Your task to perform on an android device: open app "Grab" (install if not already installed) and go to login screen Image 0: 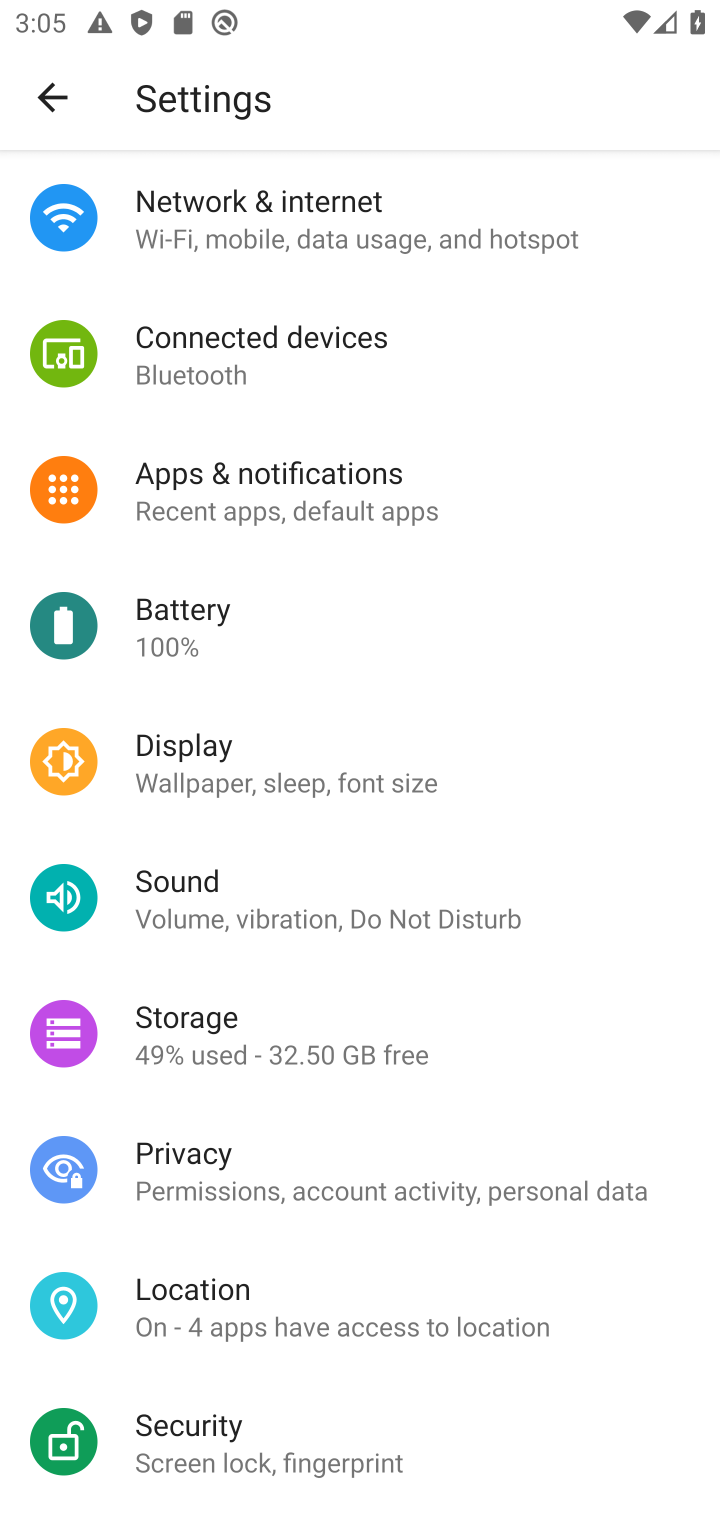
Step 0: press home button
Your task to perform on an android device: open app "Grab" (install if not already installed) and go to login screen Image 1: 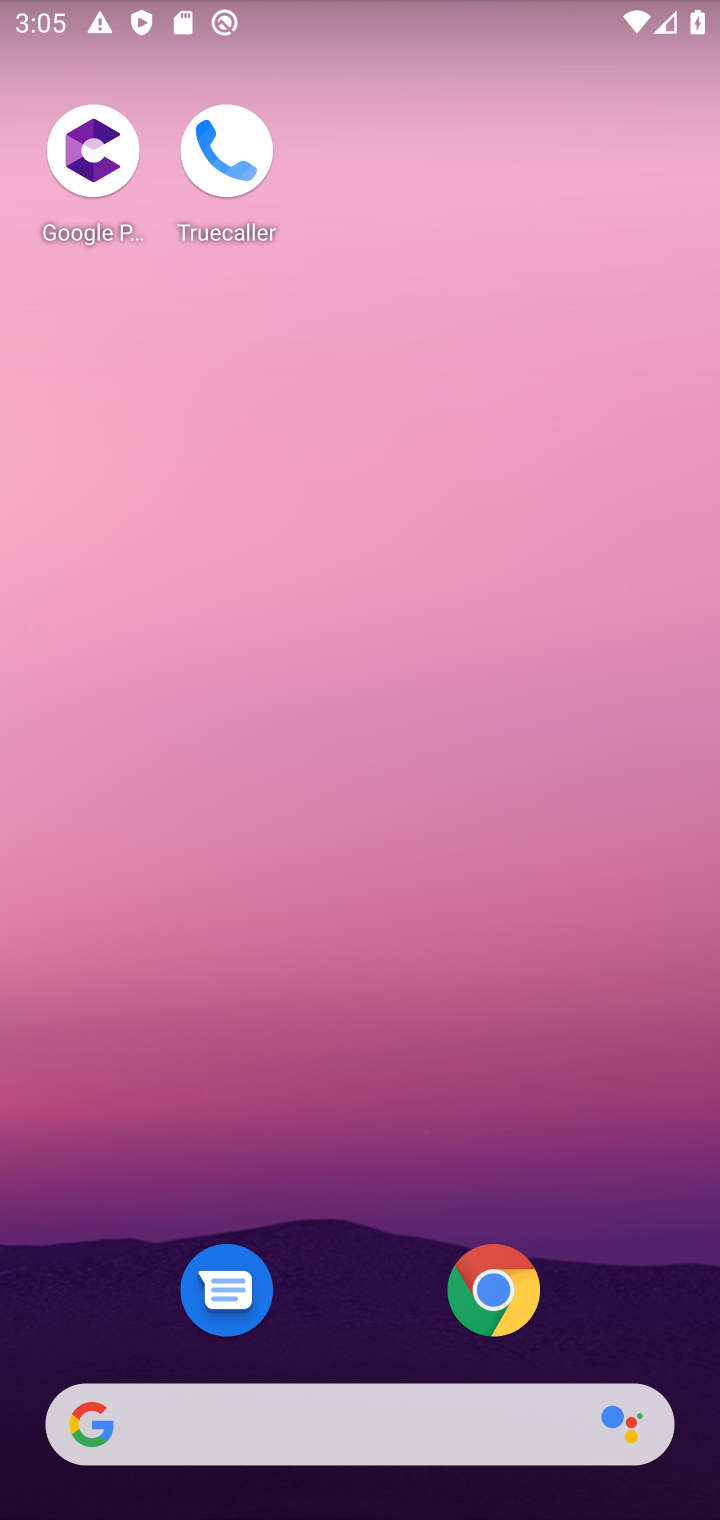
Step 1: drag from (209, 1371) to (262, 115)
Your task to perform on an android device: open app "Grab" (install if not already installed) and go to login screen Image 2: 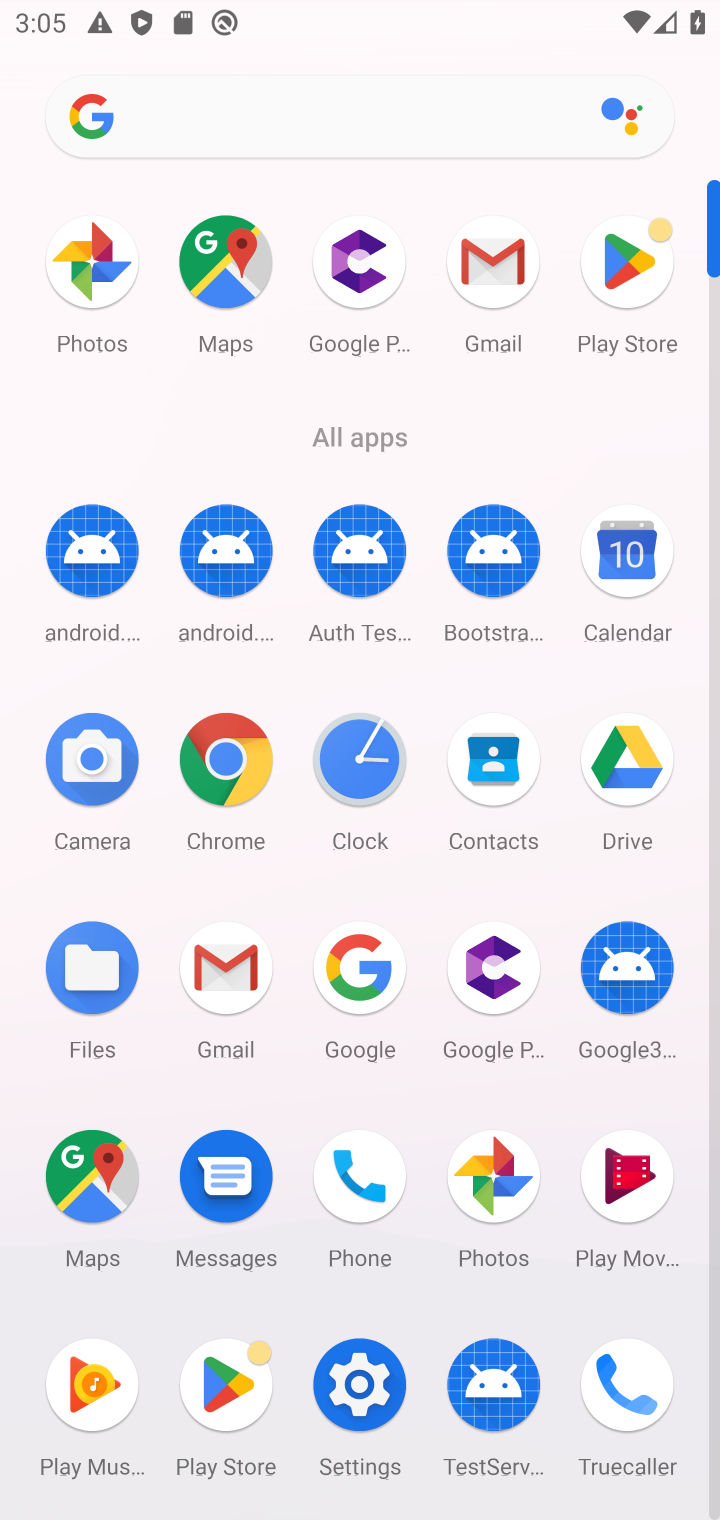
Step 2: click (241, 1408)
Your task to perform on an android device: open app "Grab" (install if not already installed) and go to login screen Image 3: 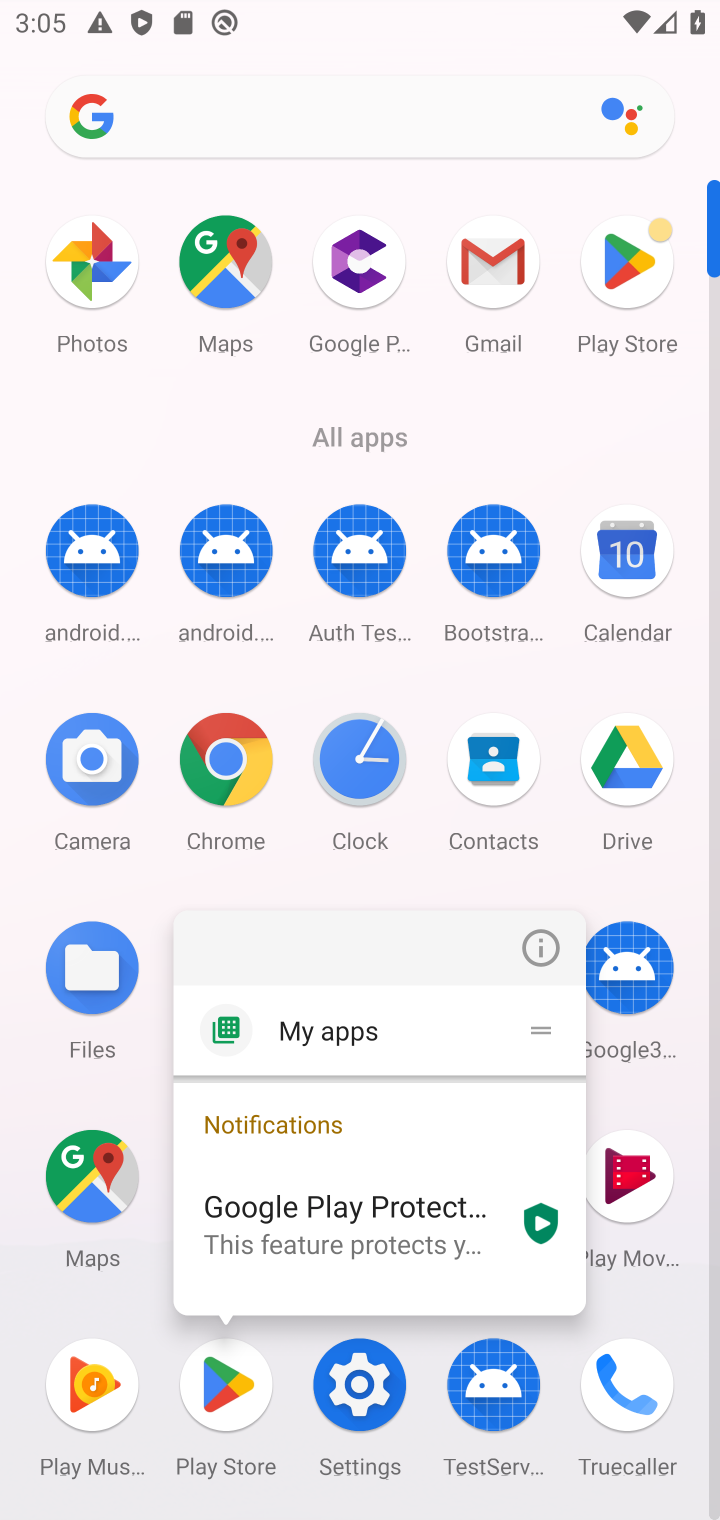
Step 3: click (211, 1416)
Your task to perform on an android device: open app "Grab" (install if not already installed) and go to login screen Image 4: 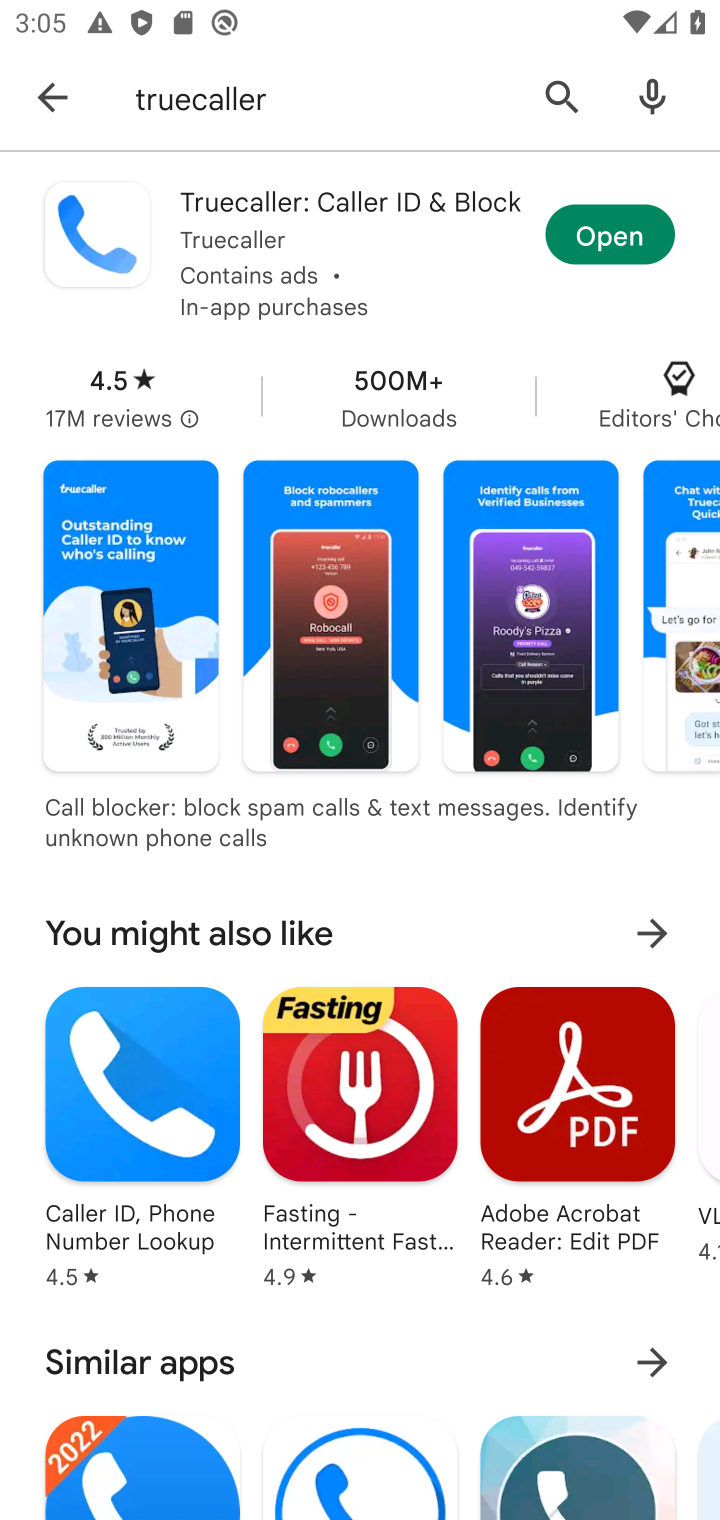
Step 4: click (55, 81)
Your task to perform on an android device: open app "Grab" (install if not already installed) and go to login screen Image 5: 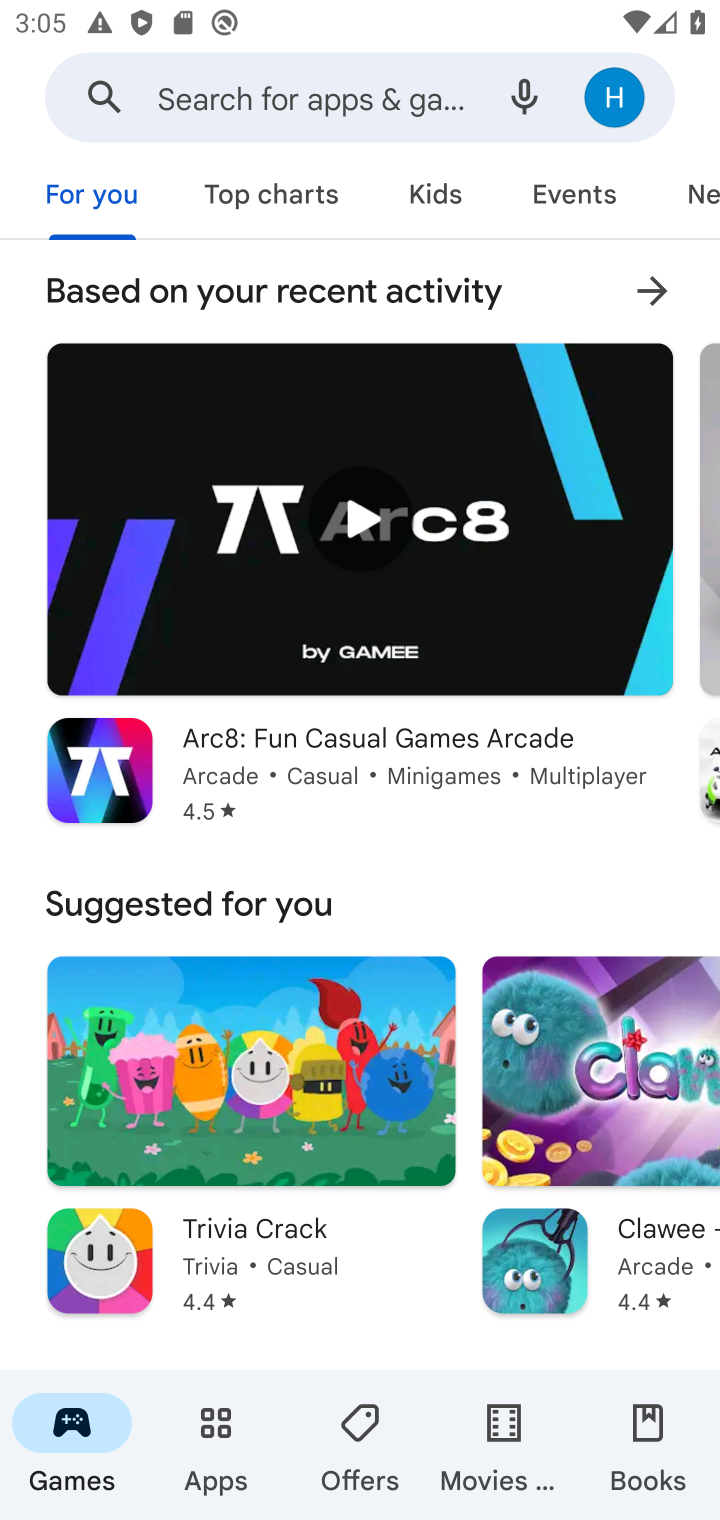
Step 5: click (214, 106)
Your task to perform on an android device: open app "Grab" (install if not already installed) and go to login screen Image 6: 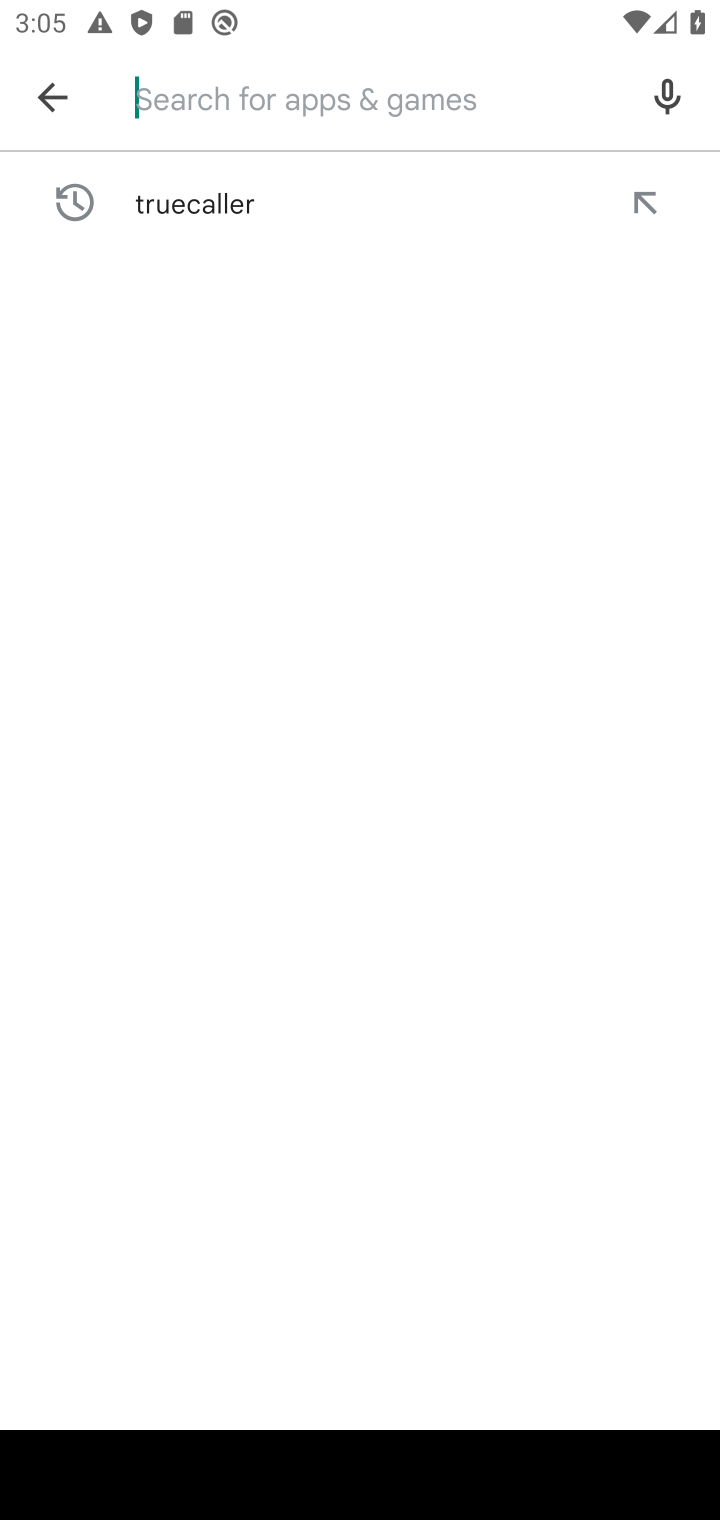
Step 6: type "Grab"
Your task to perform on an android device: open app "Grab" (install if not already installed) and go to login screen Image 7: 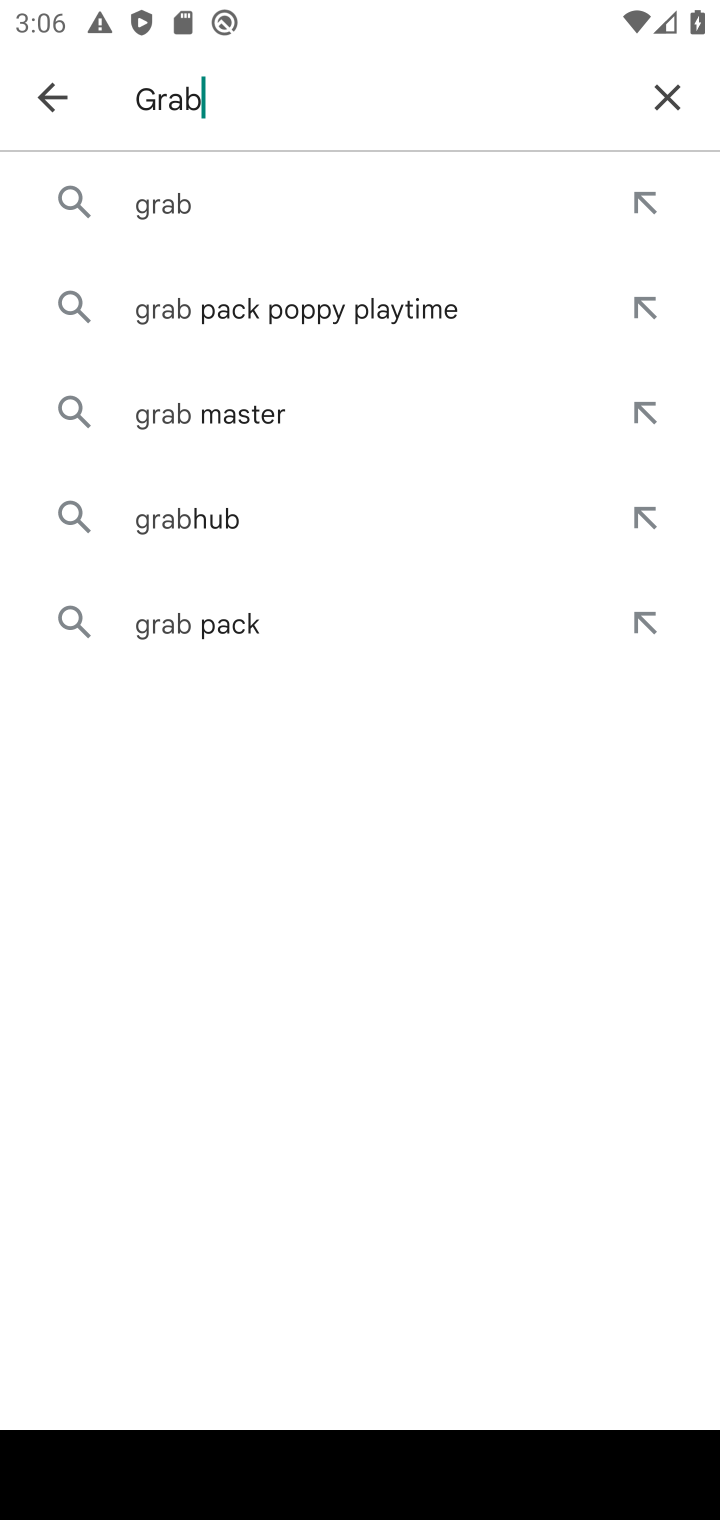
Step 7: click (126, 196)
Your task to perform on an android device: open app "Grab" (install if not already installed) and go to login screen Image 8: 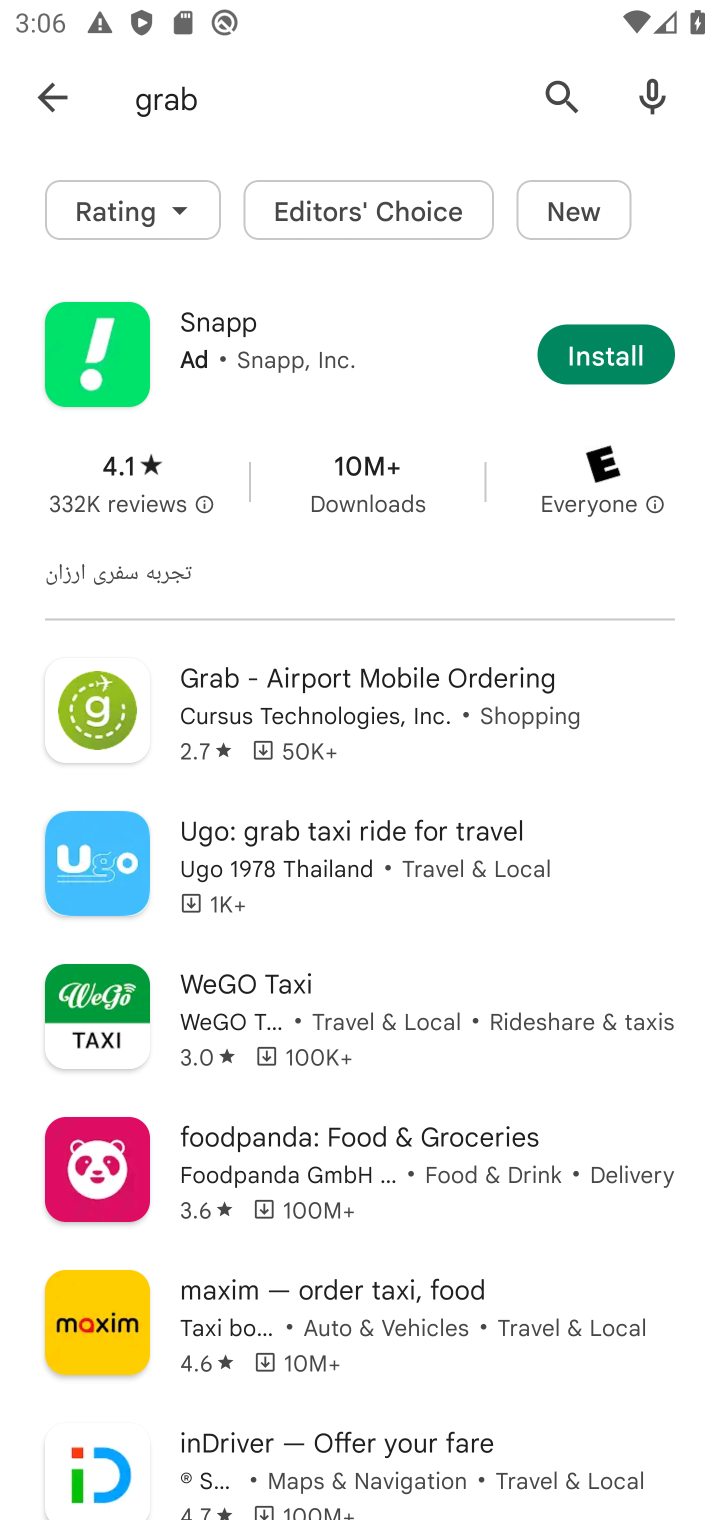
Step 8: click (248, 693)
Your task to perform on an android device: open app "Grab" (install if not already installed) and go to login screen Image 9: 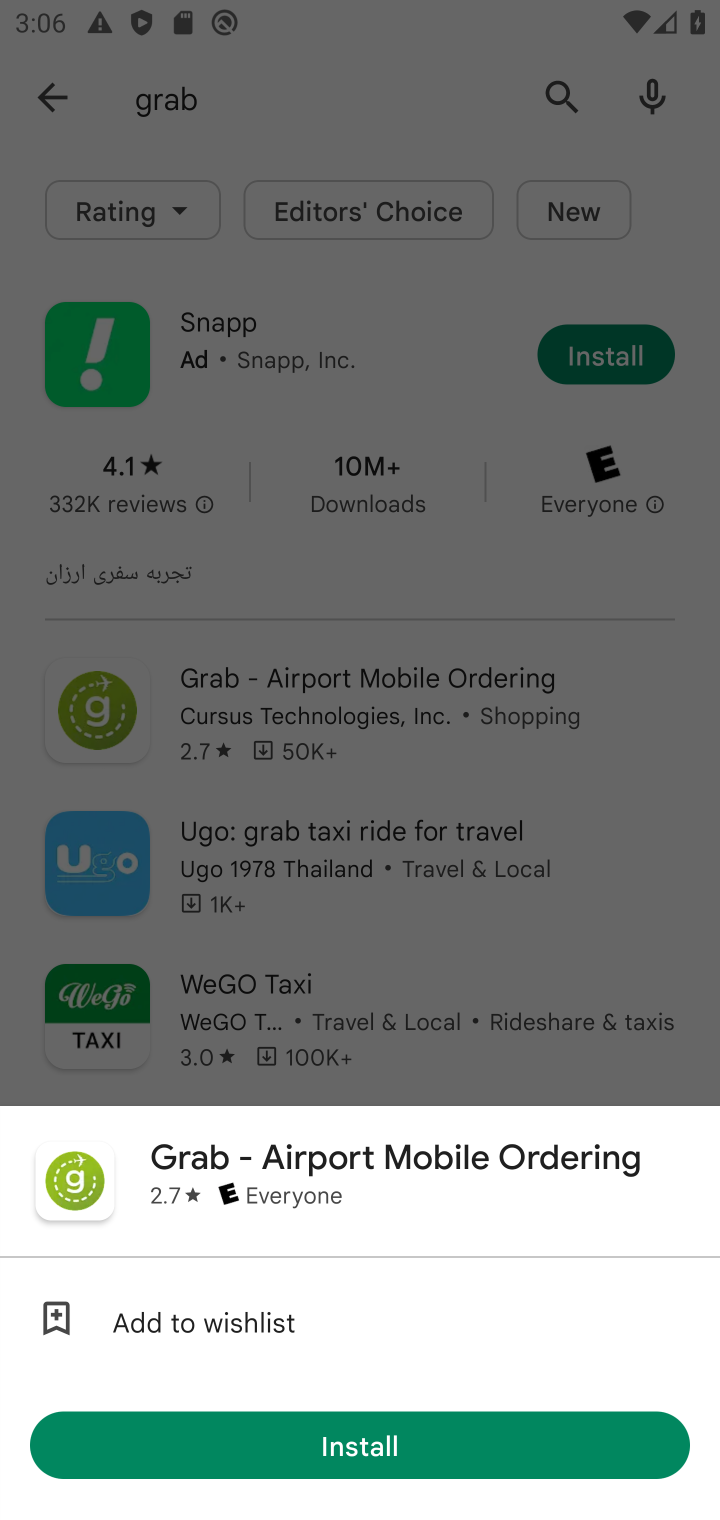
Step 9: click (258, 1446)
Your task to perform on an android device: open app "Grab" (install if not already installed) and go to login screen Image 10: 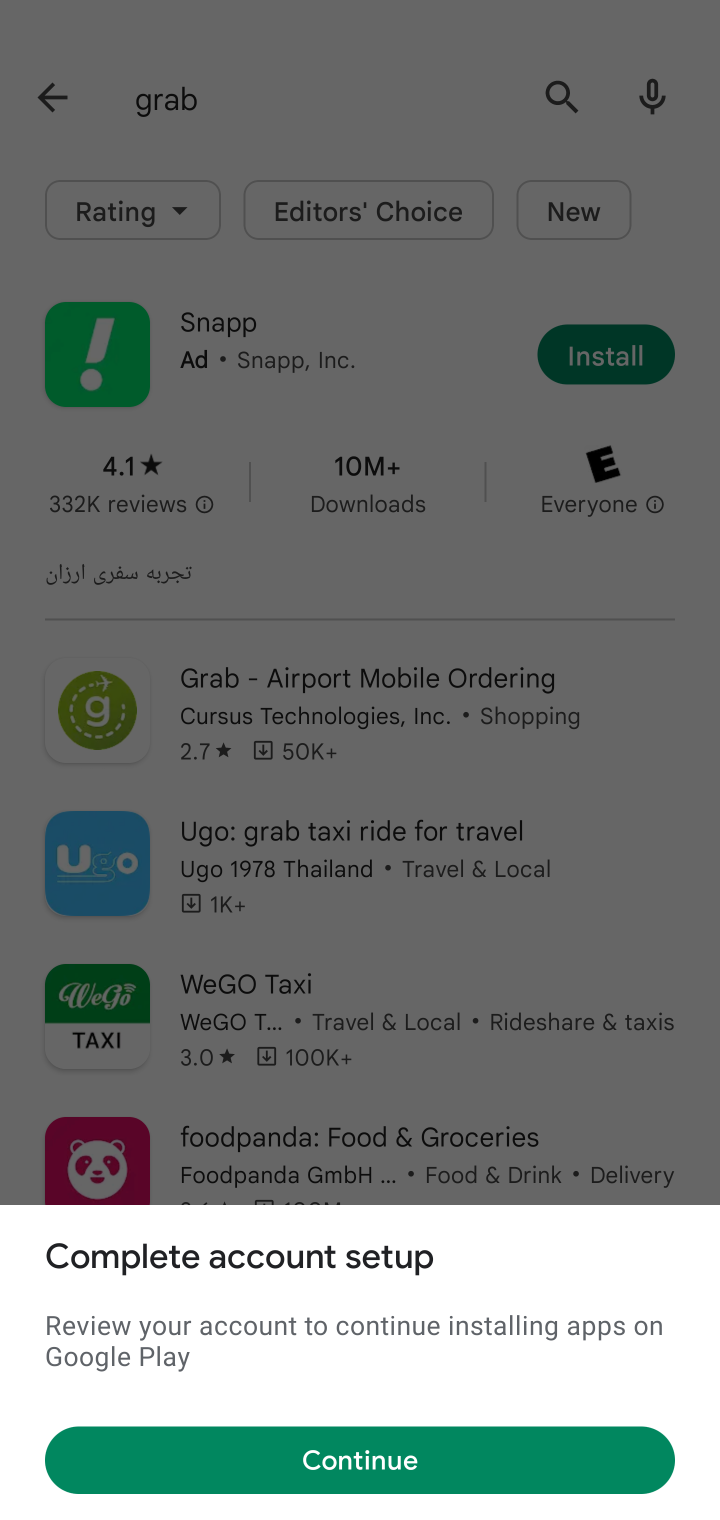
Step 10: click (376, 1442)
Your task to perform on an android device: open app "Grab" (install if not already installed) and go to login screen Image 11: 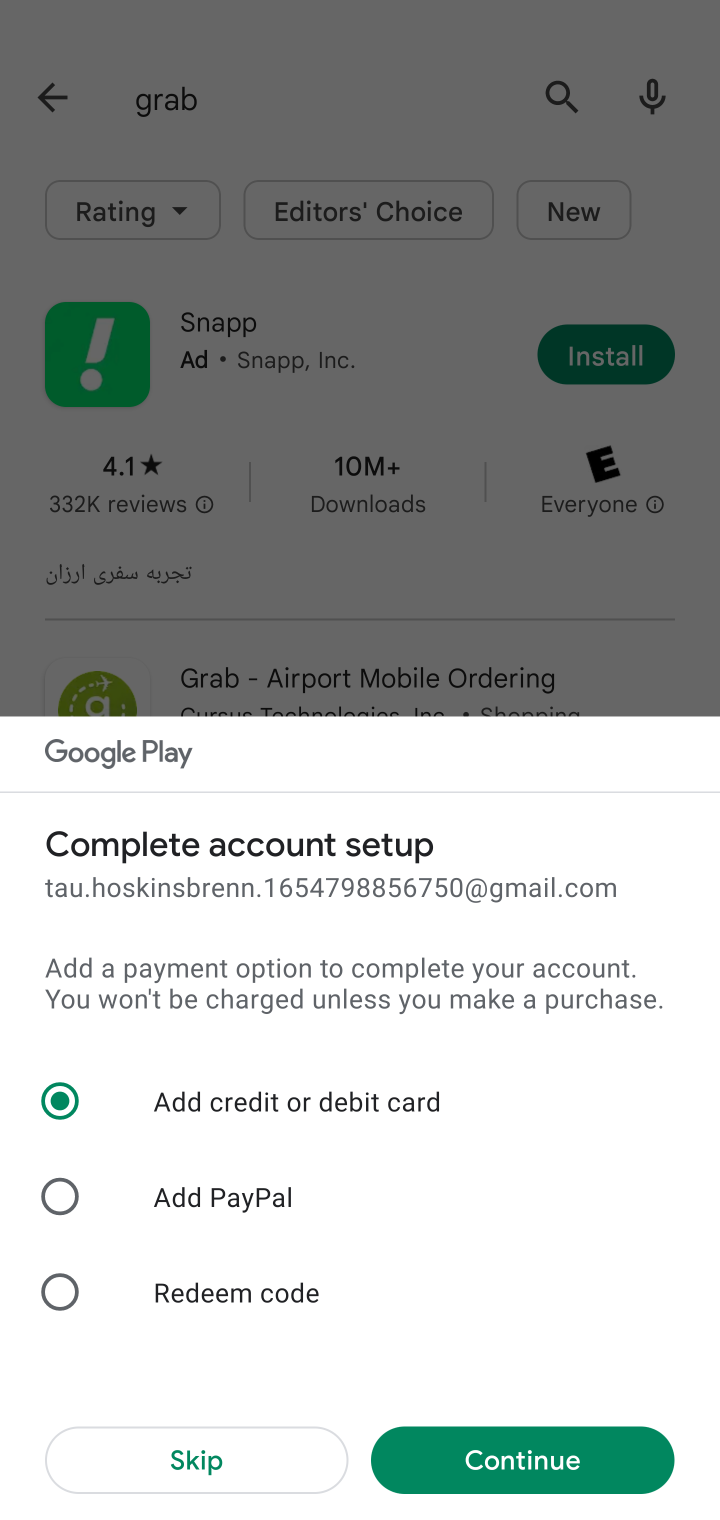
Step 11: click (129, 1456)
Your task to perform on an android device: open app "Grab" (install if not already installed) and go to login screen Image 12: 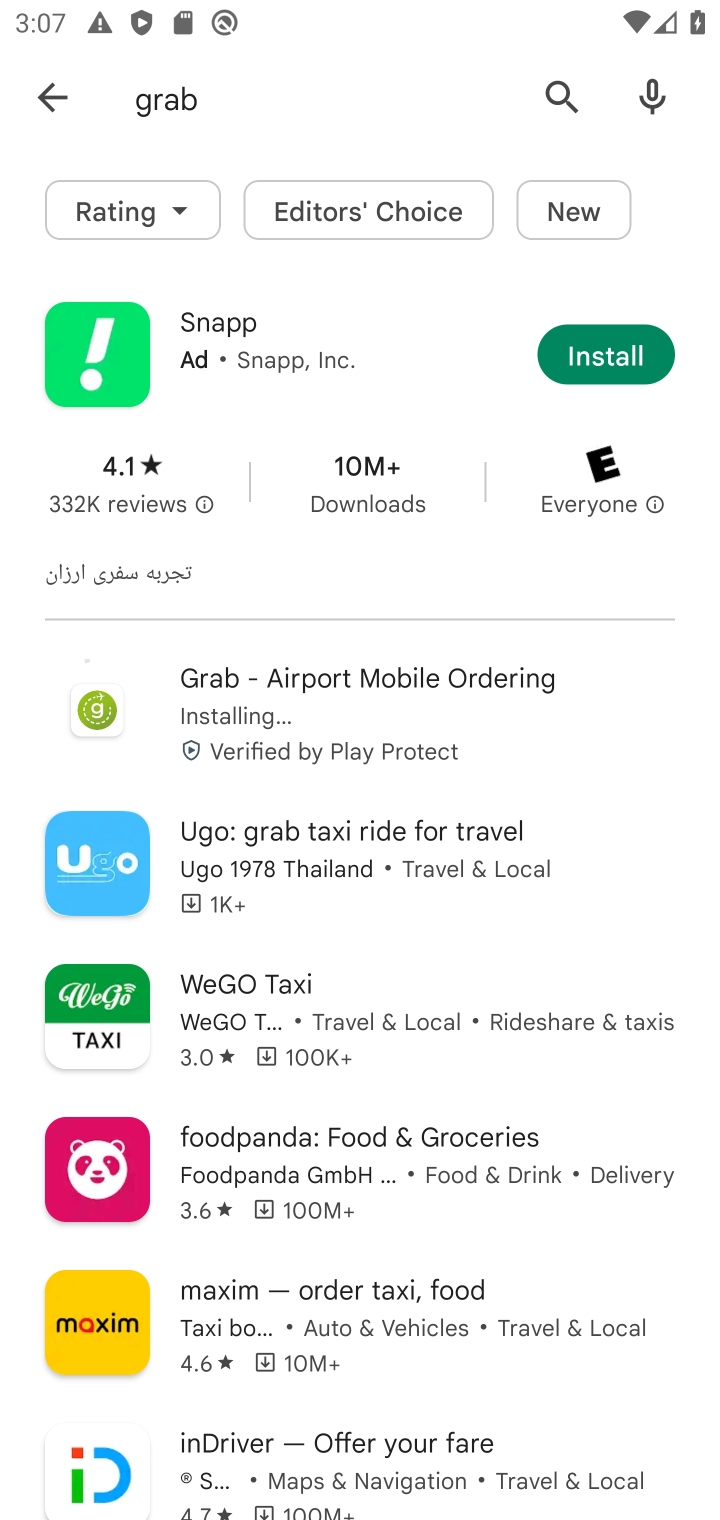
Step 12: click (309, 660)
Your task to perform on an android device: open app "Grab" (install if not already installed) and go to login screen Image 13: 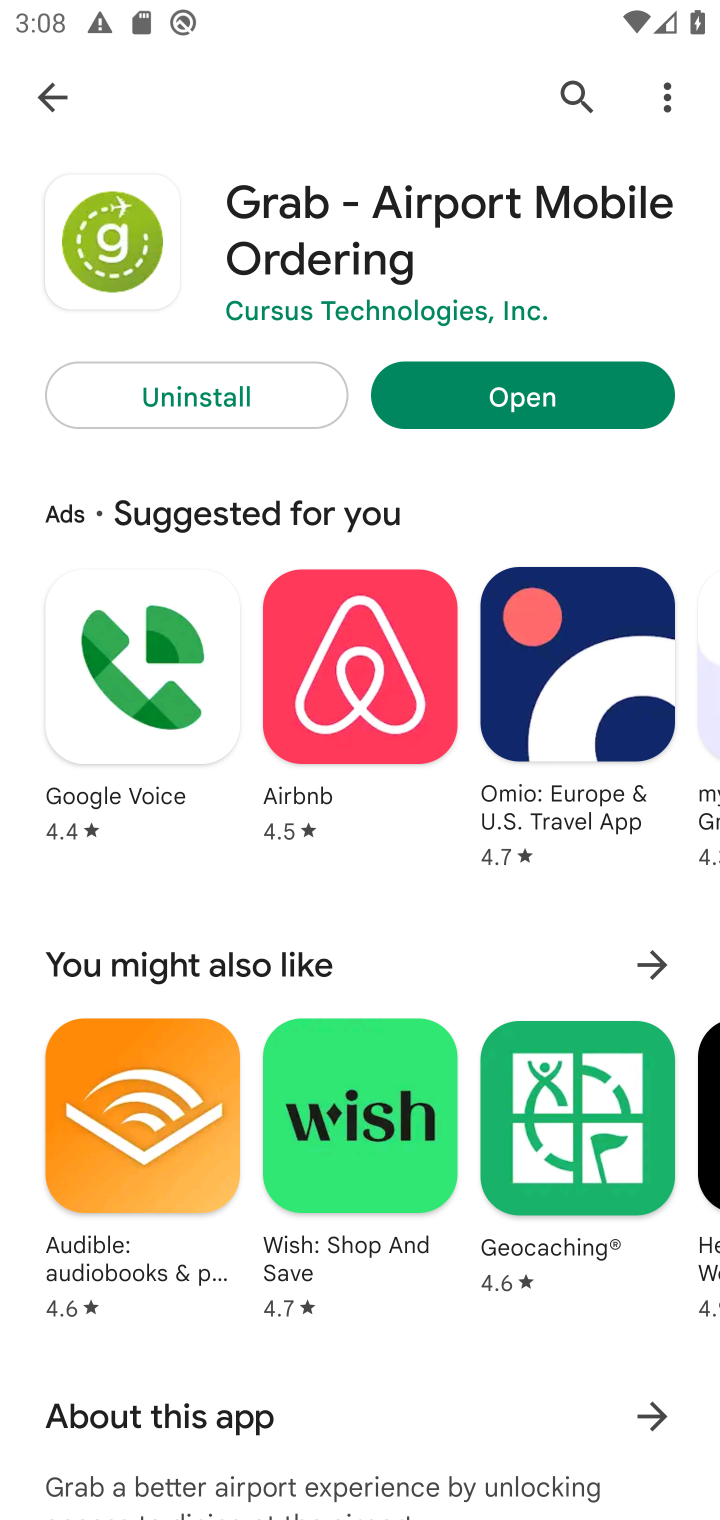
Step 13: click (534, 415)
Your task to perform on an android device: open app "Grab" (install if not already installed) and go to login screen Image 14: 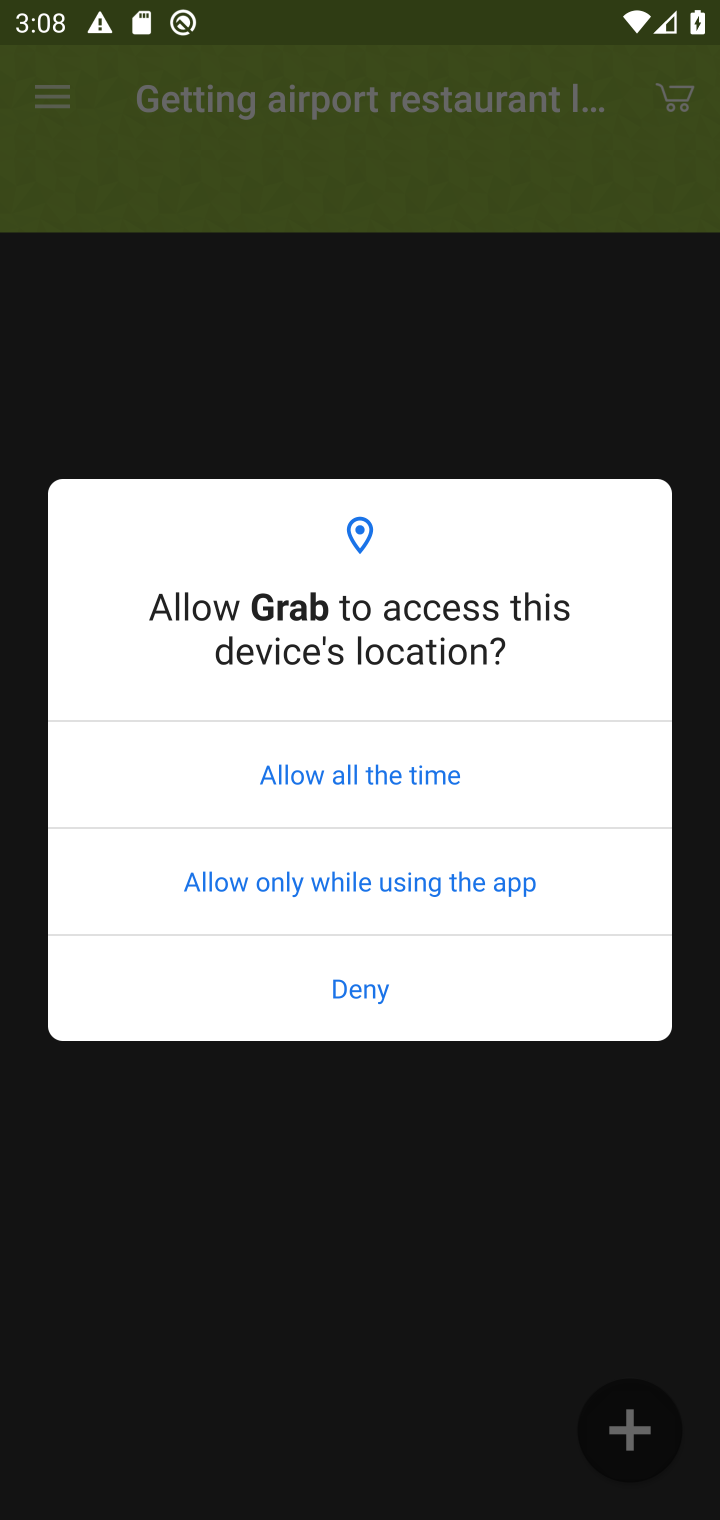
Step 14: click (367, 801)
Your task to perform on an android device: open app "Grab" (install if not already installed) and go to login screen Image 15: 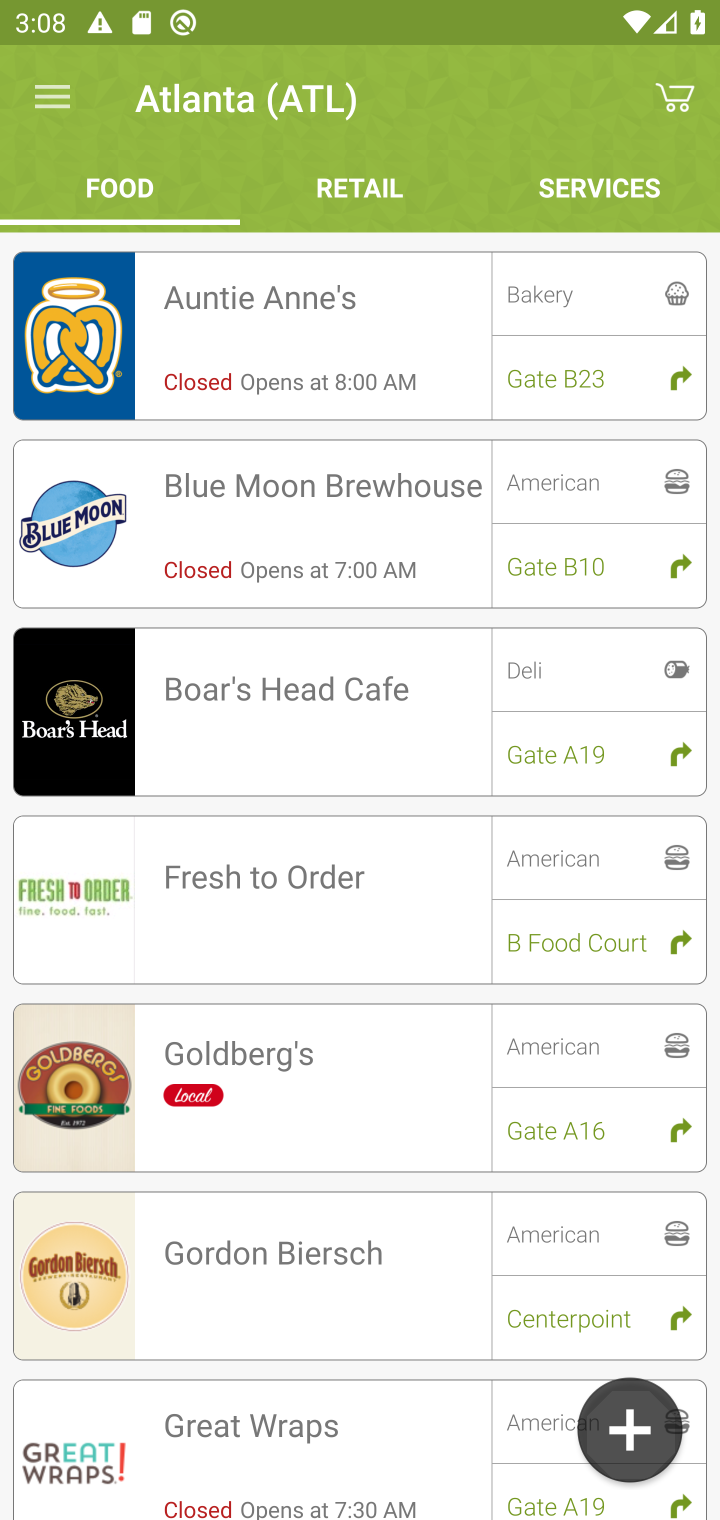
Step 15: click (42, 107)
Your task to perform on an android device: open app "Grab" (install if not already installed) and go to login screen Image 16: 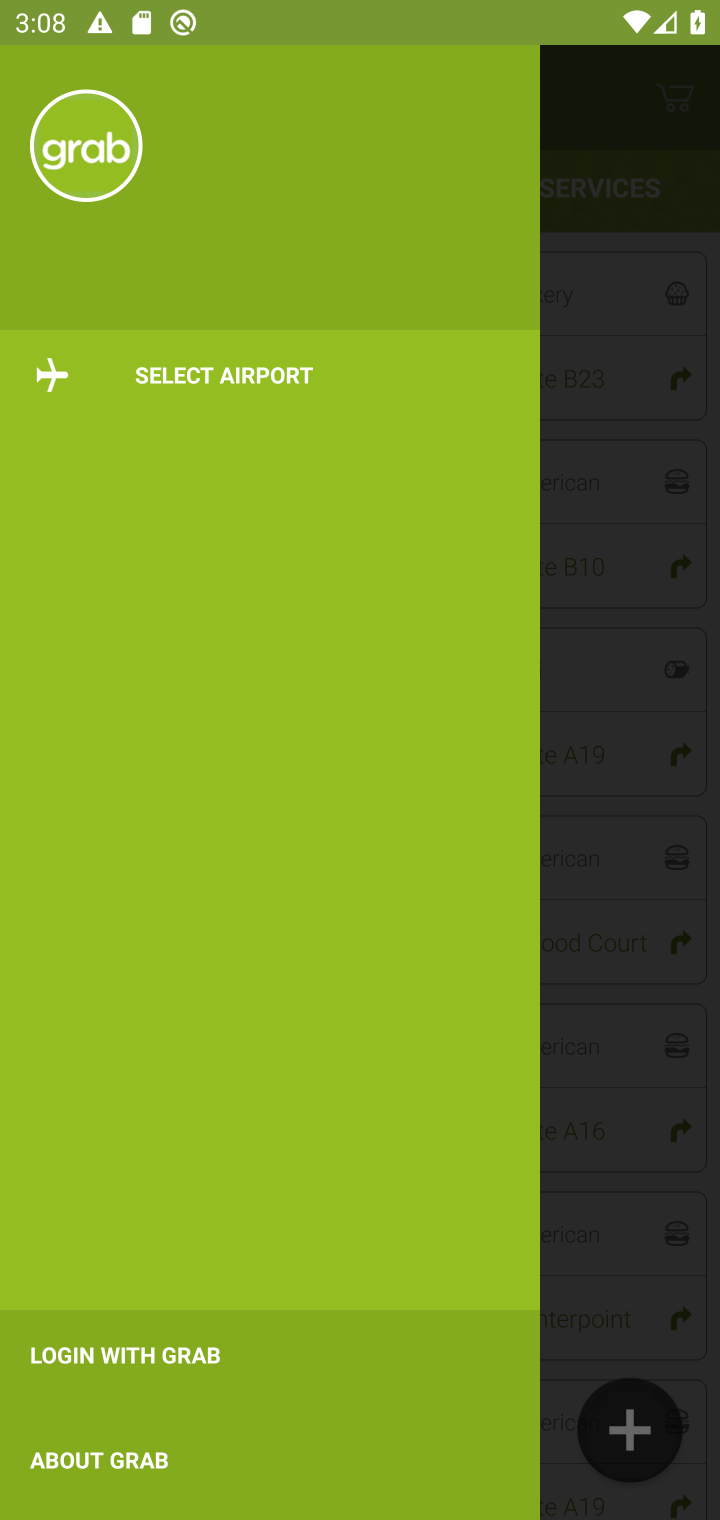
Step 16: click (159, 1381)
Your task to perform on an android device: open app "Grab" (install if not already installed) and go to login screen Image 17: 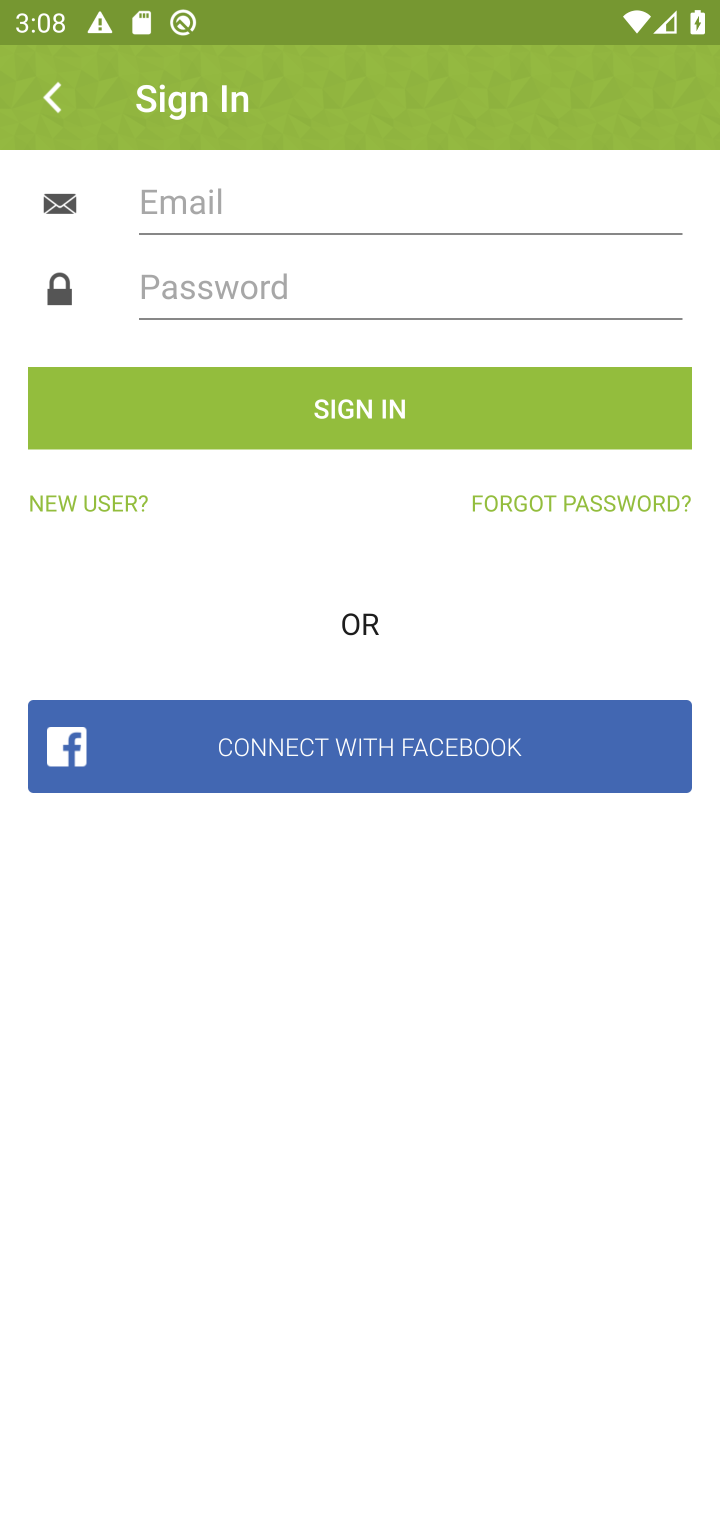
Step 17: task complete